Your task to perform on an android device: install app "Duolingo: language lessons" Image 0: 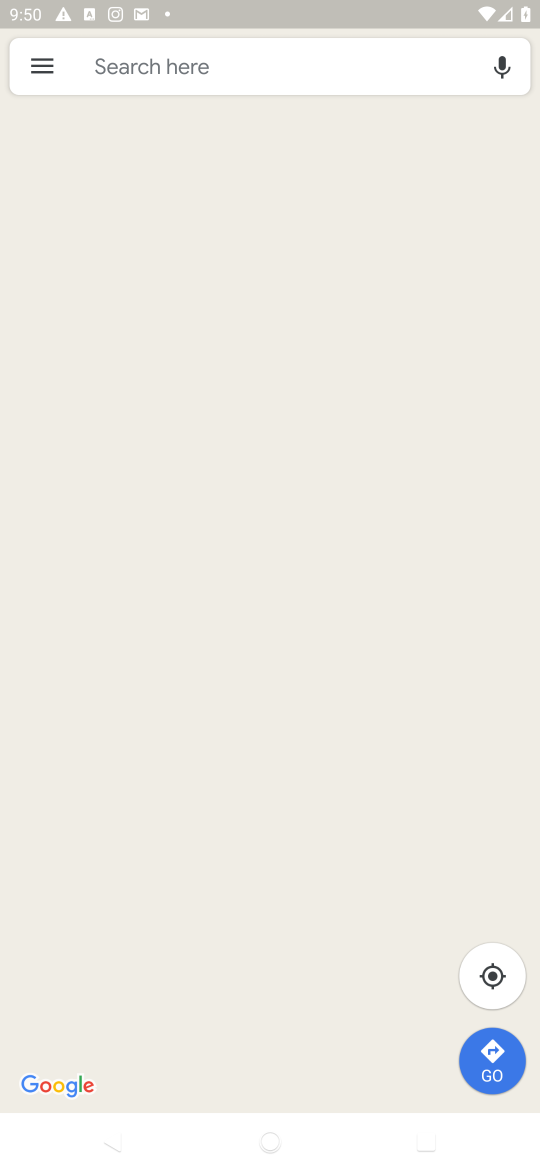
Step 0: click (160, 57)
Your task to perform on an android device: install app "Duolingo: language lessons" Image 1: 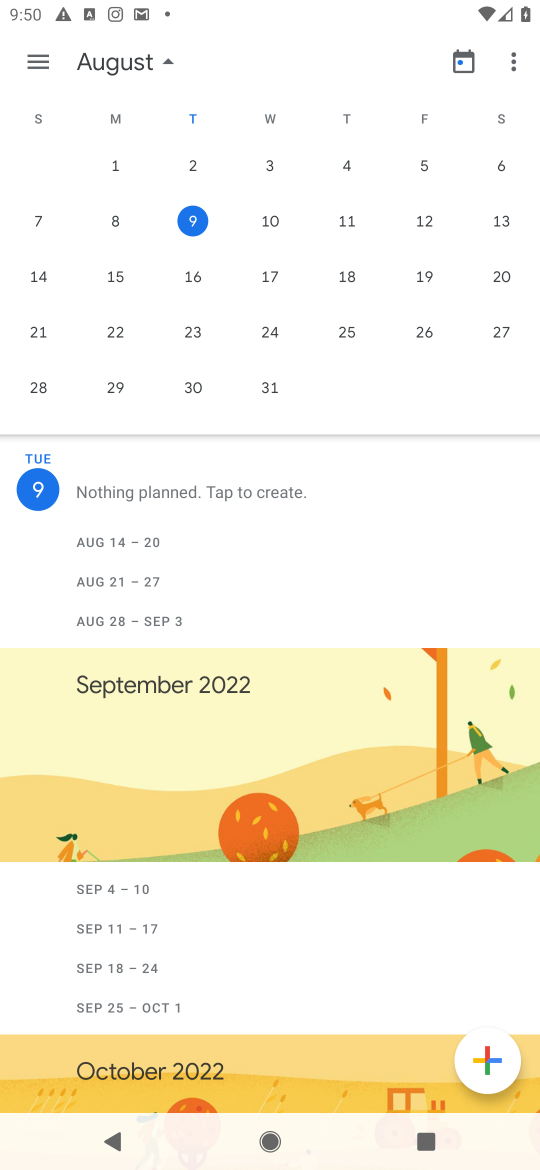
Step 1: press home button
Your task to perform on an android device: install app "Duolingo: language lessons" Image 2: 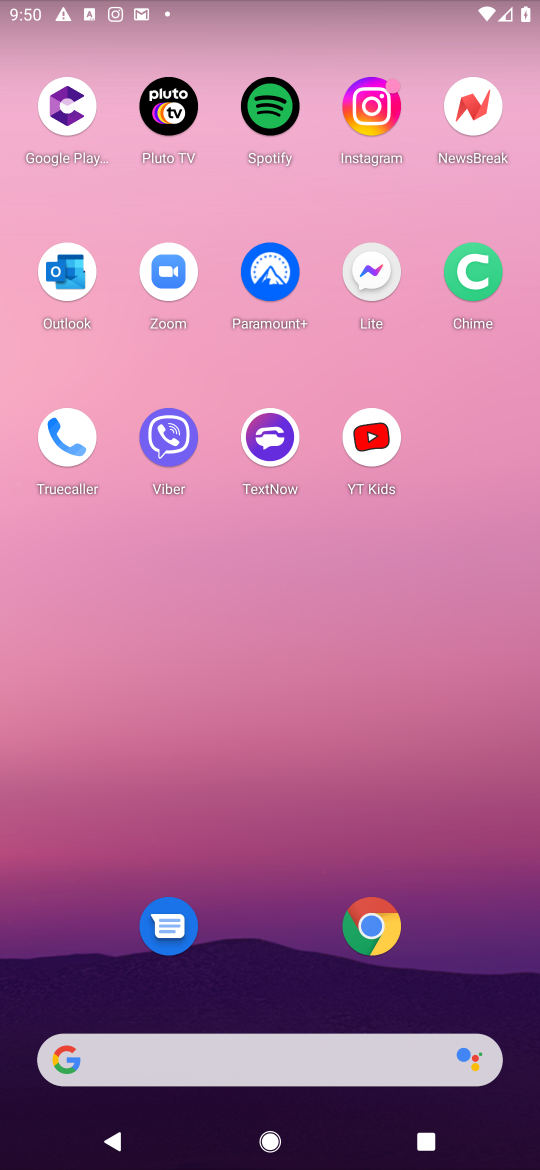
Step 2: drag from (247, 987) to (235, 103)
Your task to perform on an android device: install app "Duolingo: language lessons" Image 3: 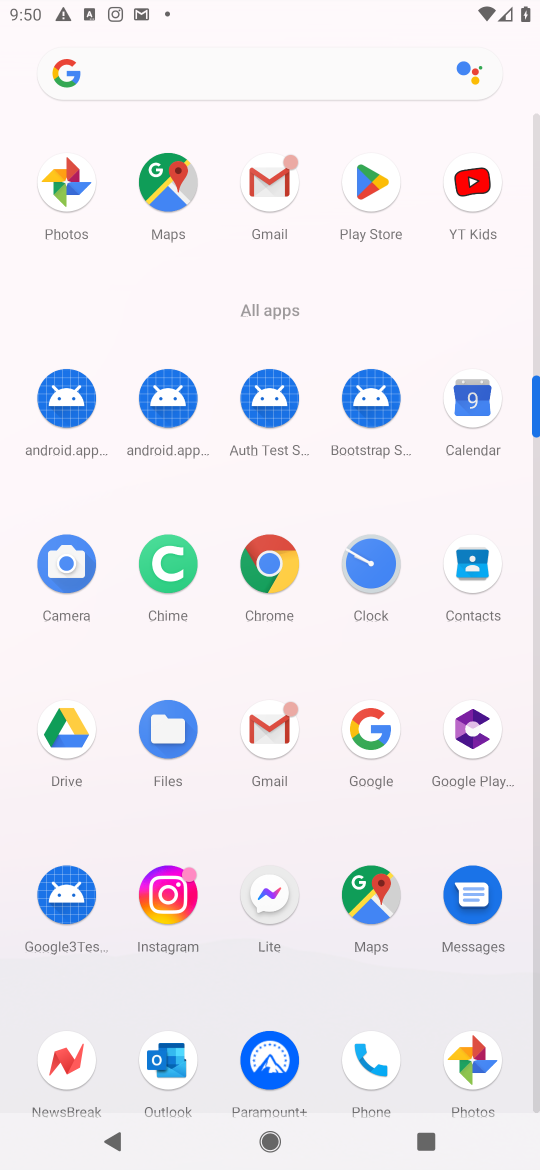
Step 3: click (370, 325)
Your task to perform on an android device: install app "Duolingo: language lessons" Image 4: 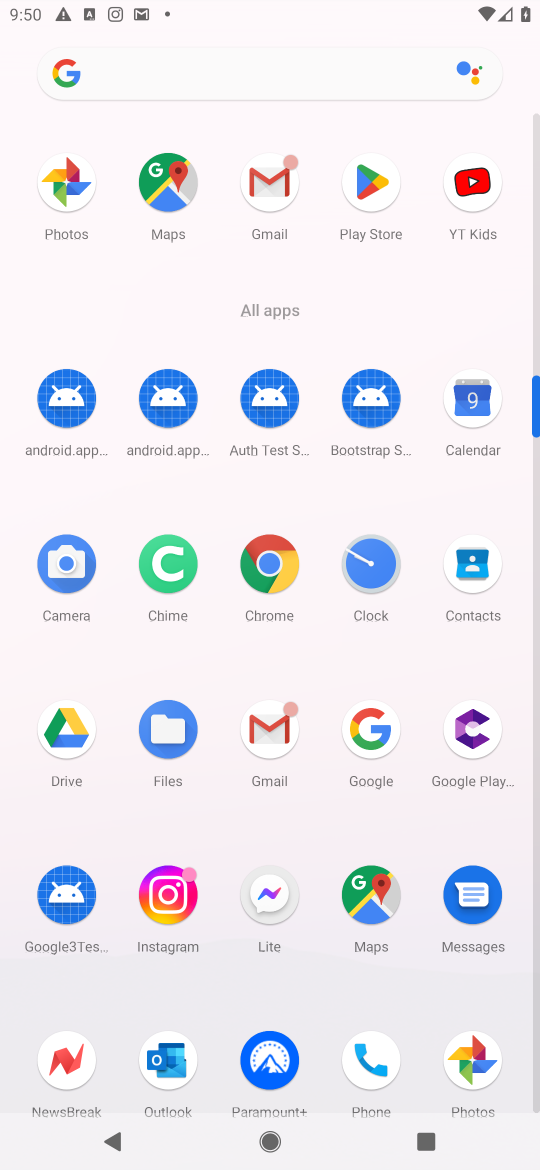
Step 4: click (370, 202)
Your task to perform on an android device: install app "Duolingo: language lessons" Image 5: 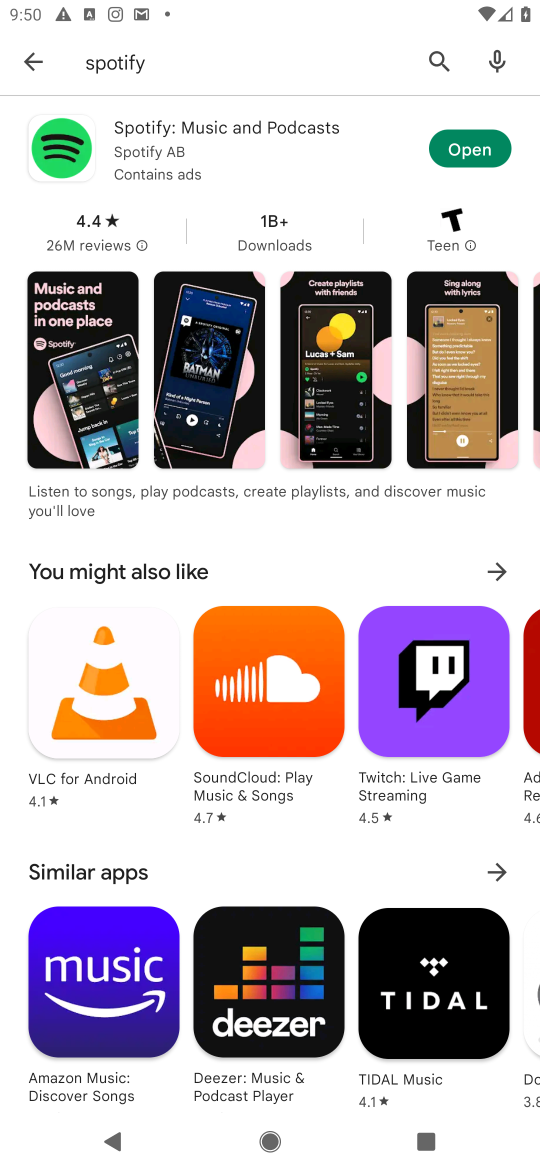
Step 5: click (248, 63)
Your task to perform on an android device: install app "Duolingo: language lessons" Image 6: 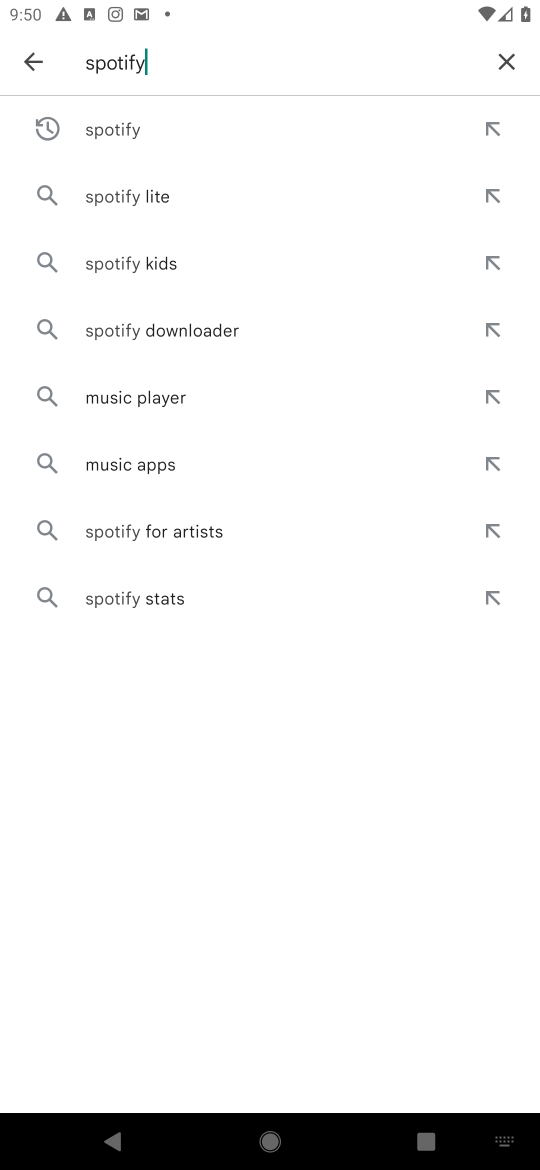
Step 6: click (492, 60)
Your task to perform on an android device: install app "Duolingo: language lessons" Image 7: 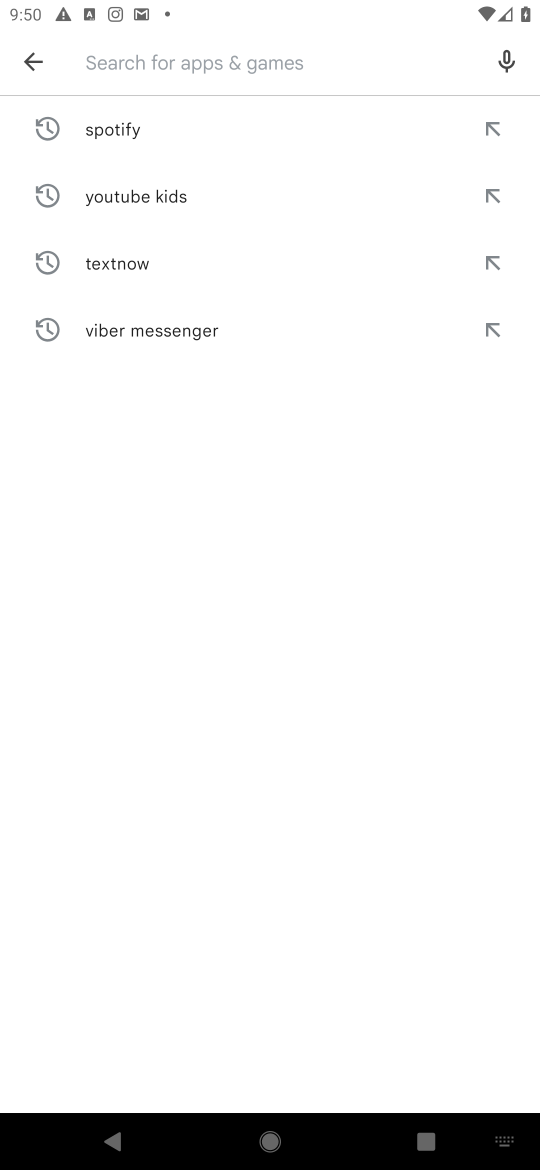
Step 7: type "Duolingo"
Your task to perform on an android device: install app "Duolingo: language lessons" Image 8: 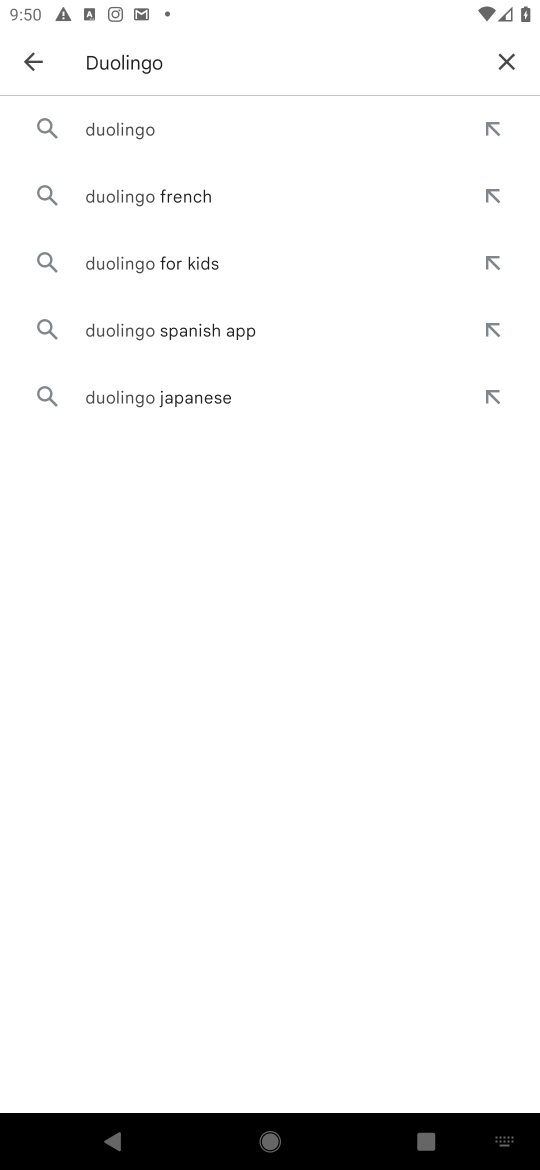
Step 8: click (150, 118)
Your task to perform on an android device: install app "Duolingo: language lessons" Image 9: 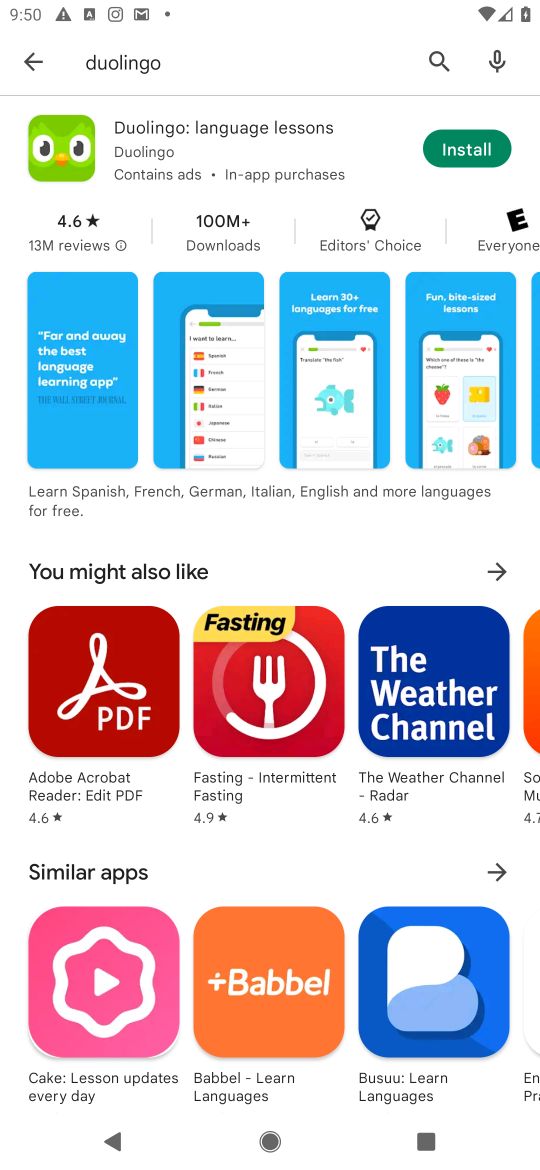
Step 9: click (457, 151)
Your task to perform on an android device: install app "Duolingo: language lessons" Image 10: 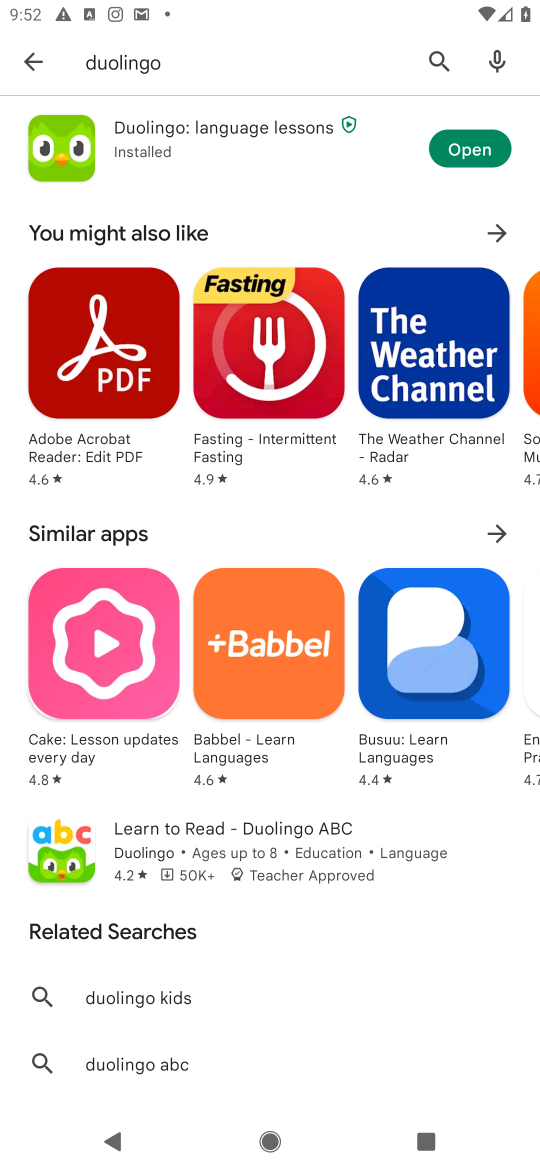
Step 10: task complete